Your task to perform on an android device: turn off wifi Image 0: 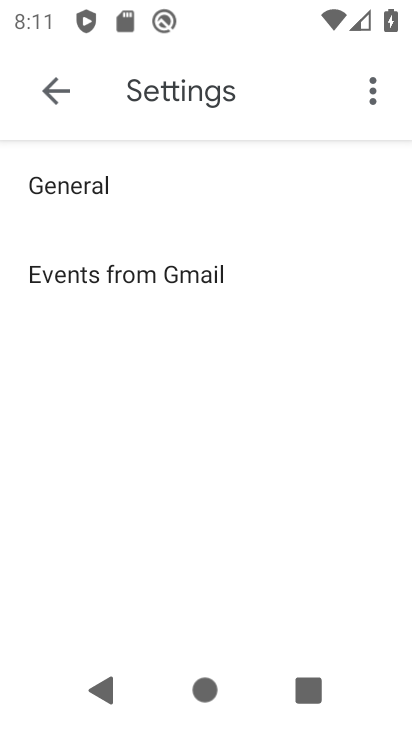
Step 0: press home button
Your task to perform on an android device: turn off wifi Image 1: 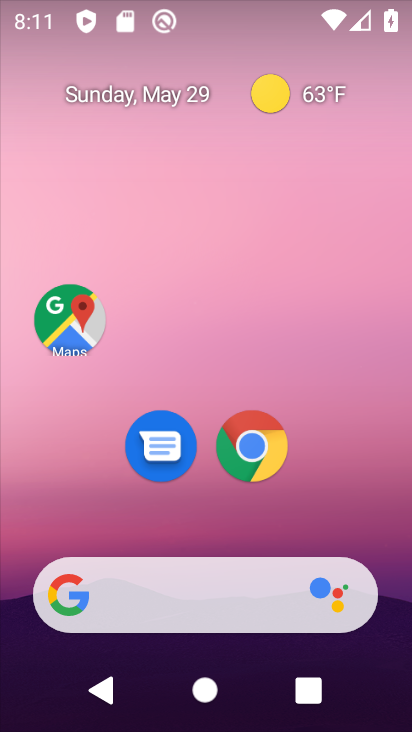
Step 1: drag from (206, 526) to (219, 147)
Your task to perform on an android device: turn off wifi Image 2: 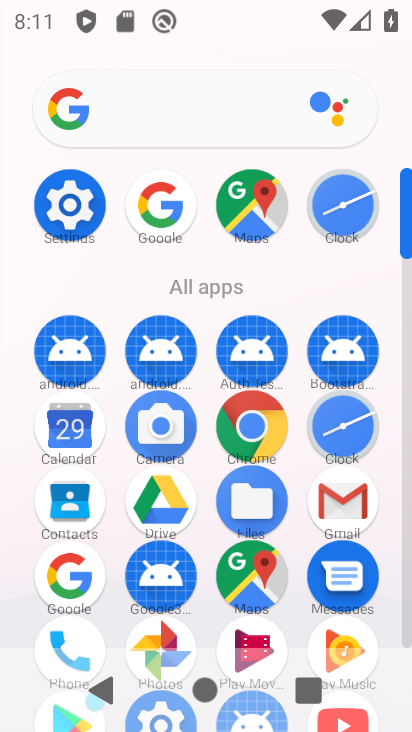
Step 2: click (88, 182)
Your task to perform on an android device: turn off wifi Image 3: 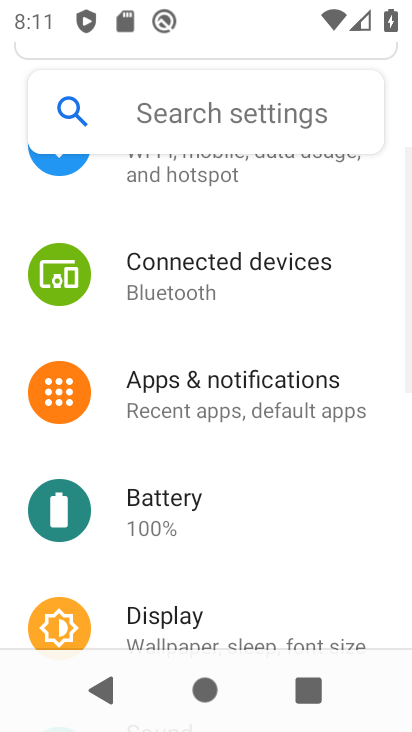
Step 3: drag from (159, 190) to (215, 584)
Your task to perform on an android device: turn off wifi Image 4: 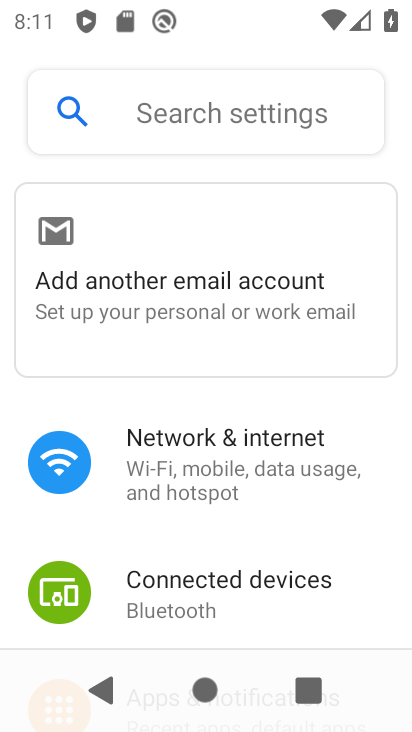
Step 4: click (195, 428)
Your task to perform on an android device: turn off wifi Image 5: 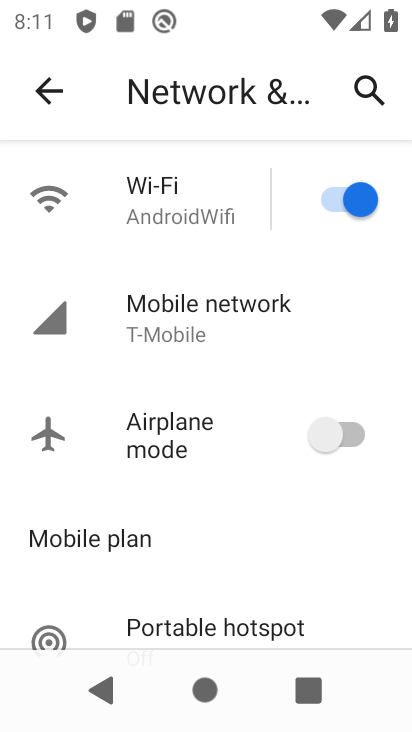
Step 5: click (326, 203)
Your task to perform on an android device: turn off wifi Image 6: 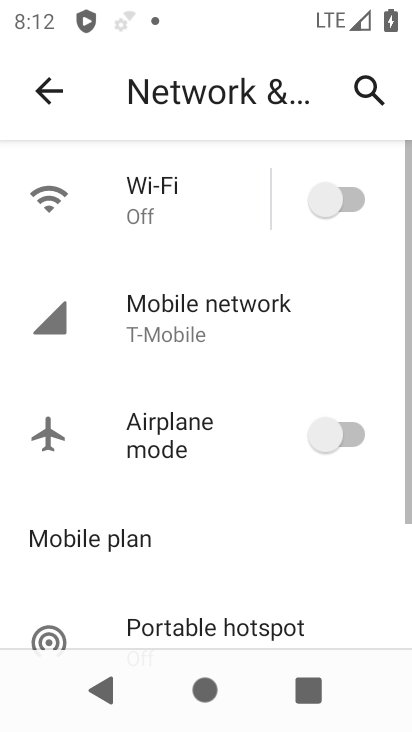
Step 6: task complete